Your task to perform on an android device: Open the Play Movies app and select the watchlist tab. Image 0: 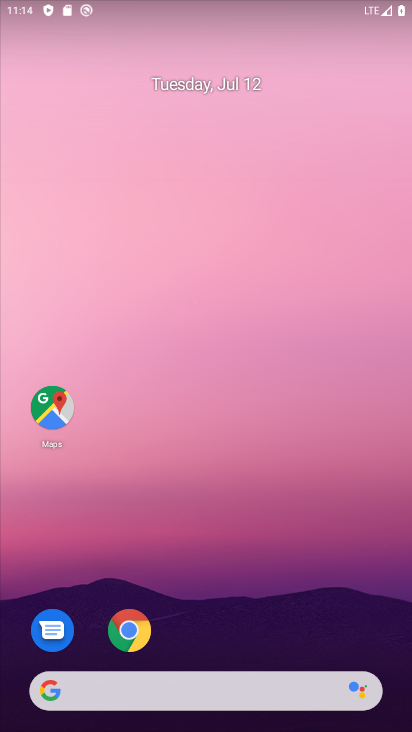
Step 0: drag from (375, 647) to (201, 59)
Your task to perform on an android device: Open the Play Movies app and select the watchlist tab. Image 1: 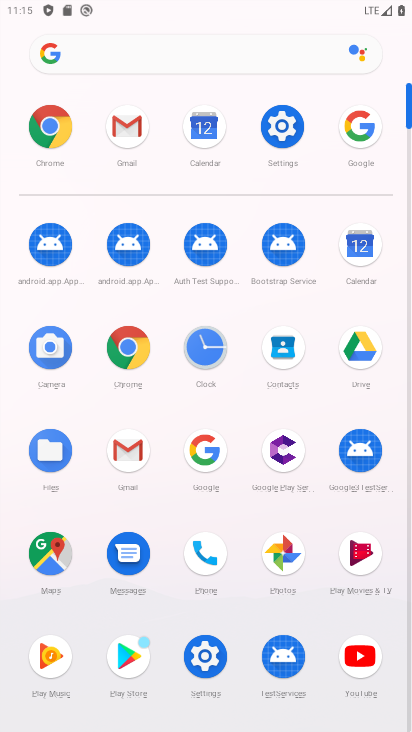
Step 1: click (361, 546)
Your task to perform on an android device: Open the Play Movies app and select the watchlist tab. Image 2: 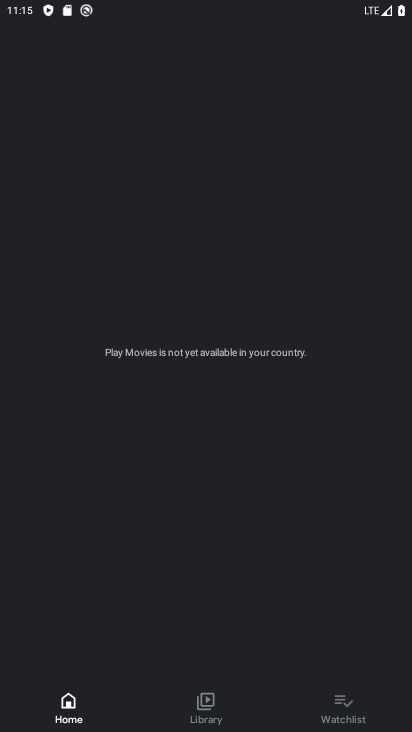
Step 2: click (338, 700)
Your task to perform on an android device: Open the Play Movies app and select the watchlist tab. Image 3: 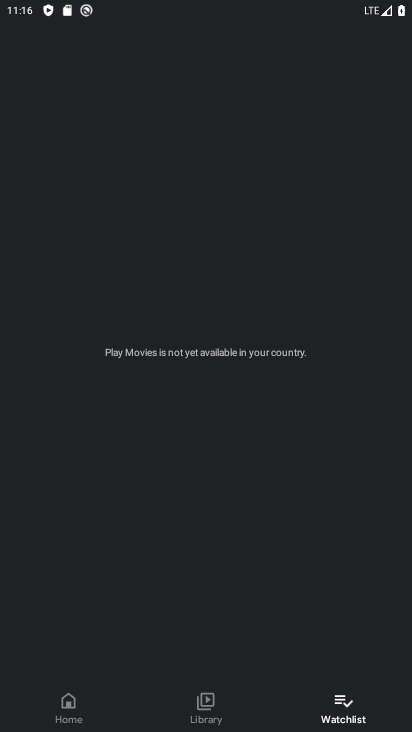
Step 3: task complete